Your task to perform on an android device: toggle airplane mode Image 0: 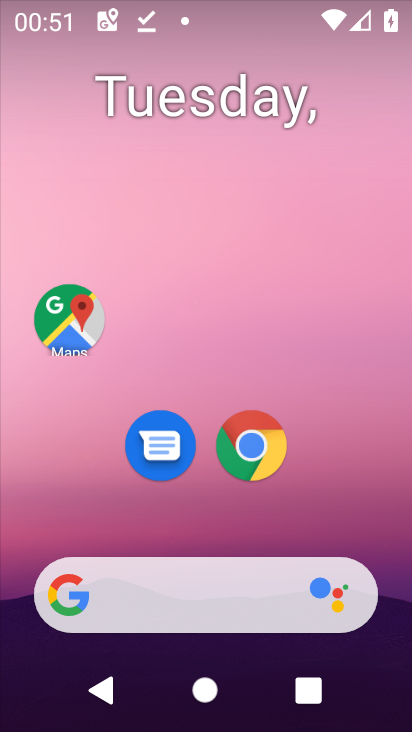
Step 0: drag from (326, 496) to (186, 32)
Your task to perform on an android device: toggle airplane mode Image 1: 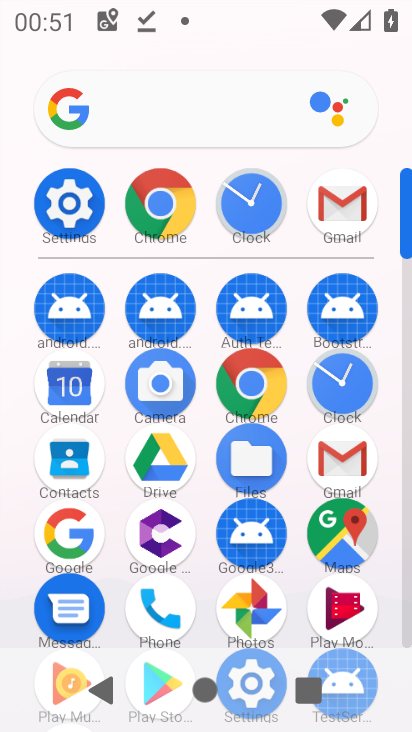
Step 1: click (62, 209)
Your task to perform on an android device: toggle airplane mode Image 2: 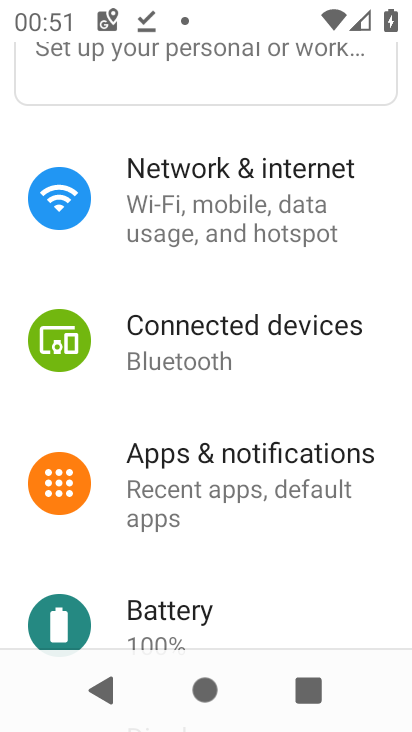
Step 2: click (211, 182)
Your task to perform on an android device: toggle airplane mode Image 3: 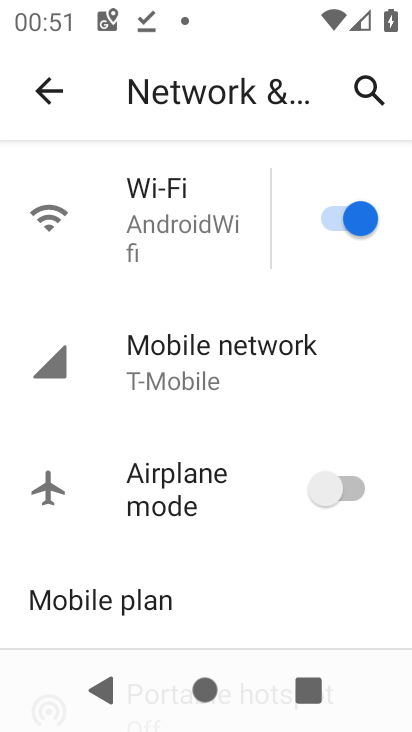
Step 3: click (335, 481)
Your task to perform on an android device: toggle airplane mode Image 4: 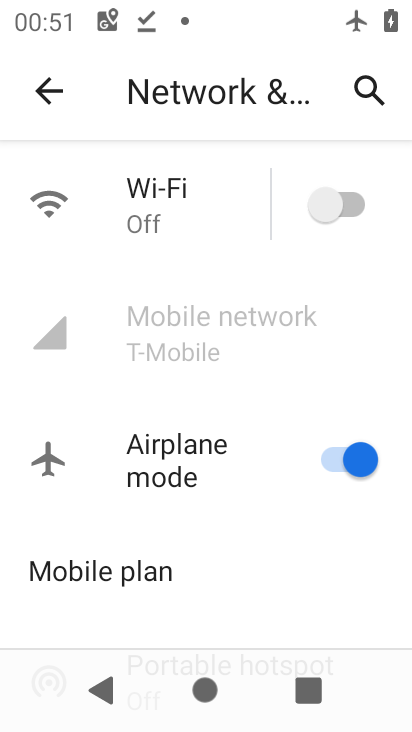
Step 4: task complete